Your task to perform on an android device: read, delete, or share a saved page in the chrome app Image 0: 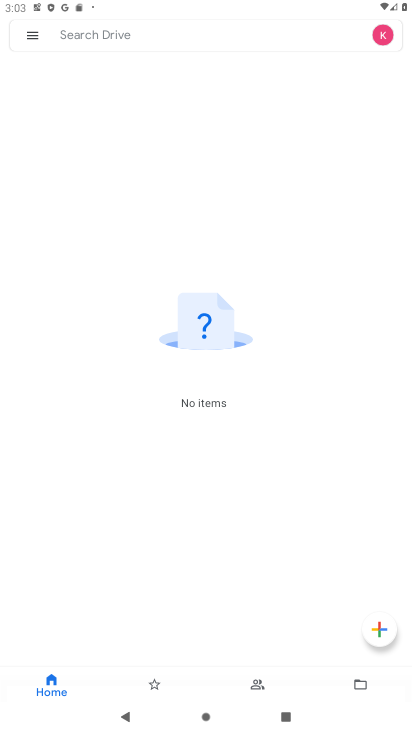
Step 0: press home button
Your task to perform on an android device: read, delete, or share a saved page in the chrome app Image 1: 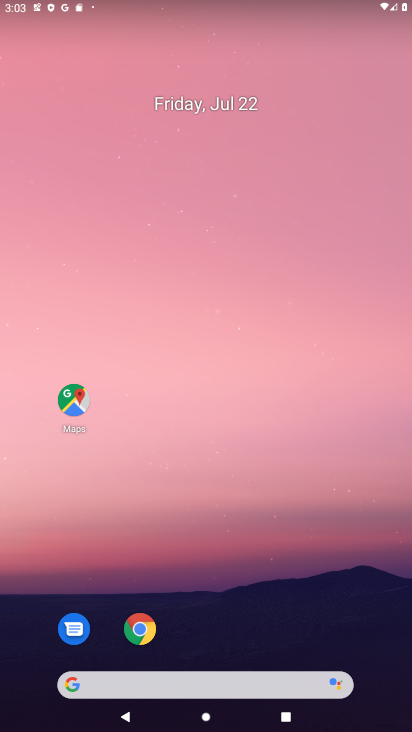
Step 1: click (139, 630)
Your task to perform on an android device: read, delete, or share a saved page in the chrome app Image 2: 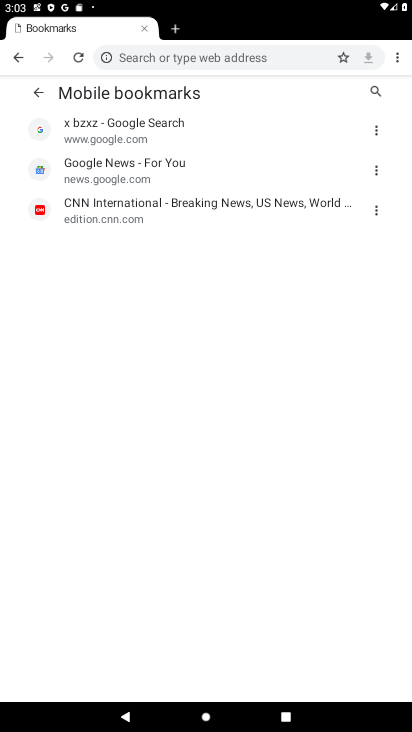
Step 2: click (397, 51)
Your task to perform on an android device: read, delete, or share a saved page in the chrome app Image 3: 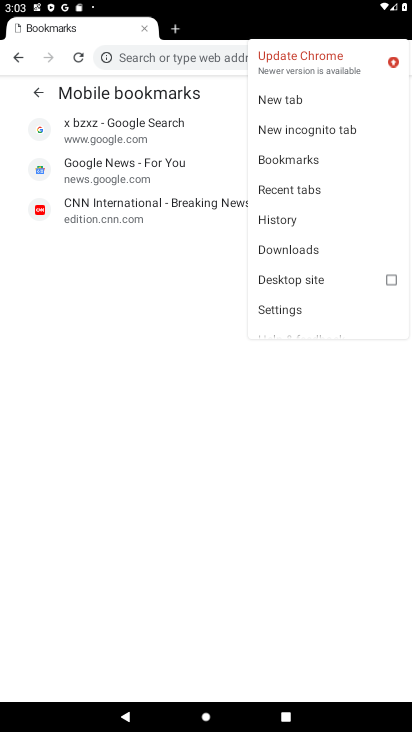
Step 3: click (302, 245)
Your task to perform on an android device: read, delete, or share a saved page in the chrome app Image 4: 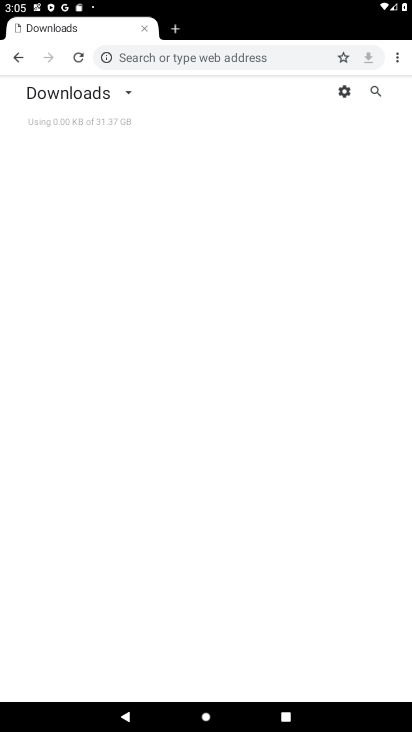
Step 4: task complete